Your task to perform on an android device: Open Google Maps Image 0: 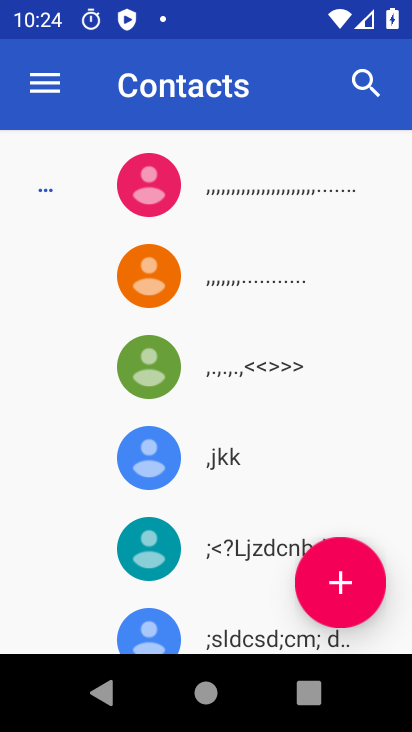
Step 0: press home button
Your task to perform on an android device: Open Google Maps Image 1: 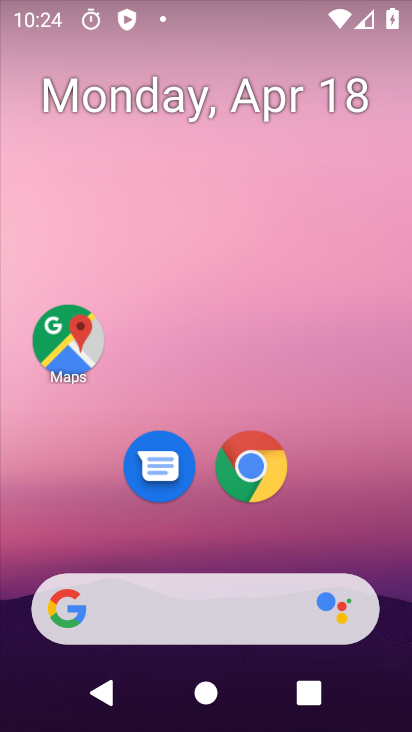
Step 1: drag from (276, 561) to (242, 199)
Your task to perform on an android device: Open Google Maps Image 2: 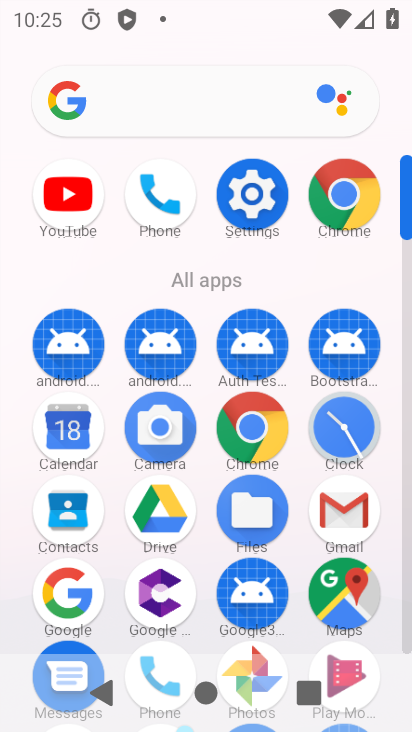
Step 2: click (344, 591)
Your task to perform on an android device: Open Google Maps Image 3: 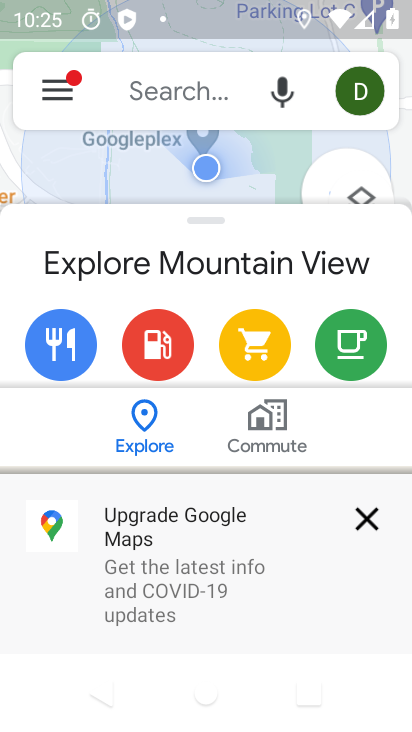
Step 3: click (363, 531)
Your task to perform on an android device: Open Google Maps Image 4: 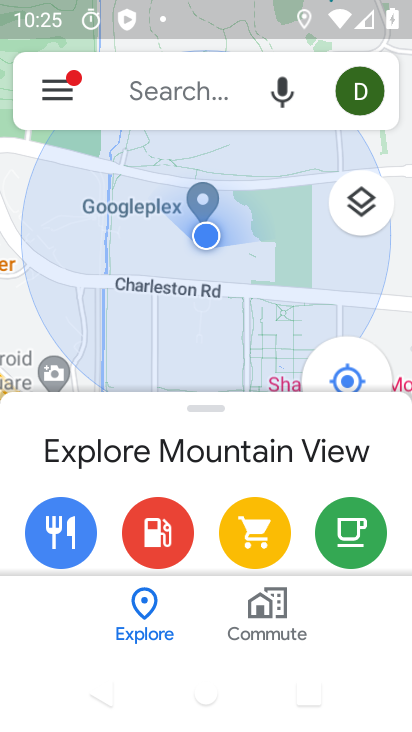
Step 4: task complete